Your task to perform on an android device: Open Youtube and go to the subscriptions tab Image 0: 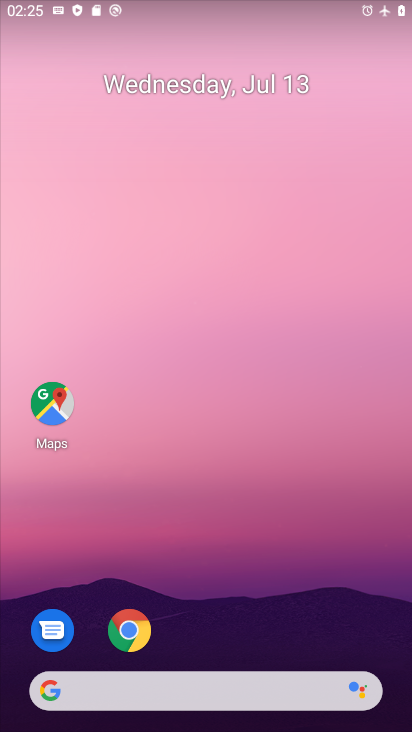
Step 0: drag from (195, 639) to (201, 156)
Your task to perform on an android device: Open Youtube and go to the subscriptions tab Image 1: 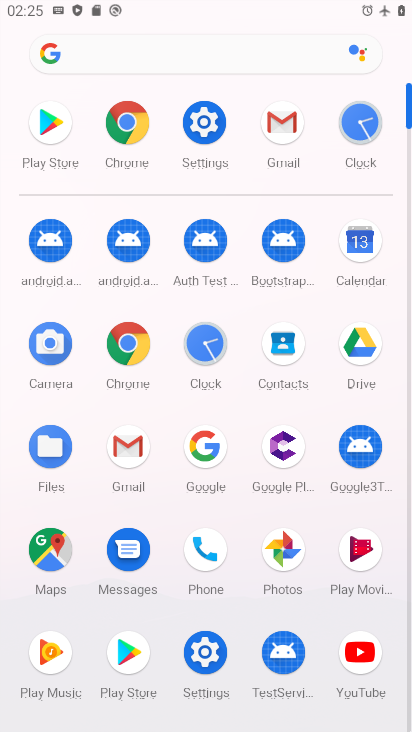
Step 1: click (355, 662)
Your task to perform on an android device: Open Youtube and go to the subscriptions tab Image 2: 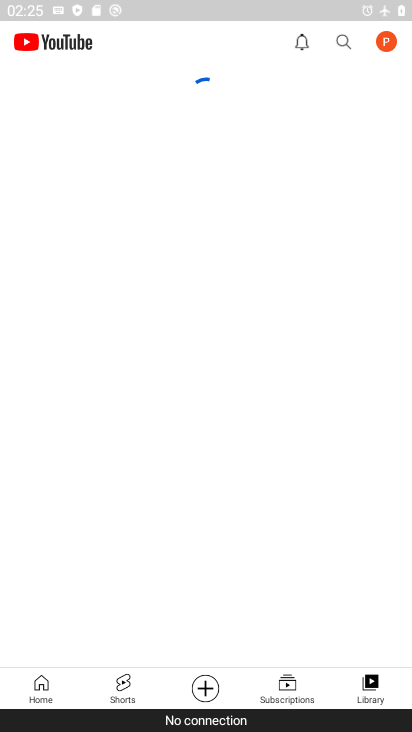
Step 2: click (280, 672)
Your task to perform on an android device: Open Youtube and go to the subscriptions tab Image 3: 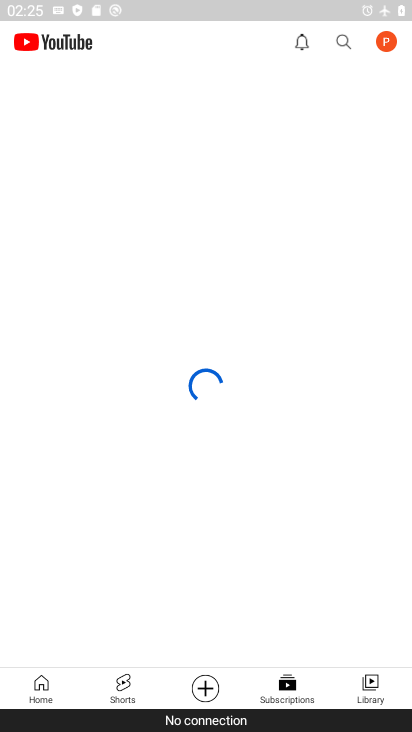
Step 3: task complete